Your task to perform on an android device: open a bookmark in the chrome app Image 0: 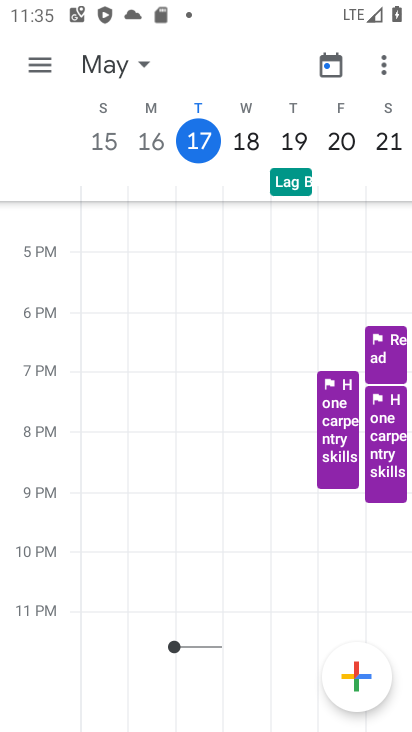
Step 0: press home button
Your task to perform on an android device: open a bookmark in the chrome app Image 1: 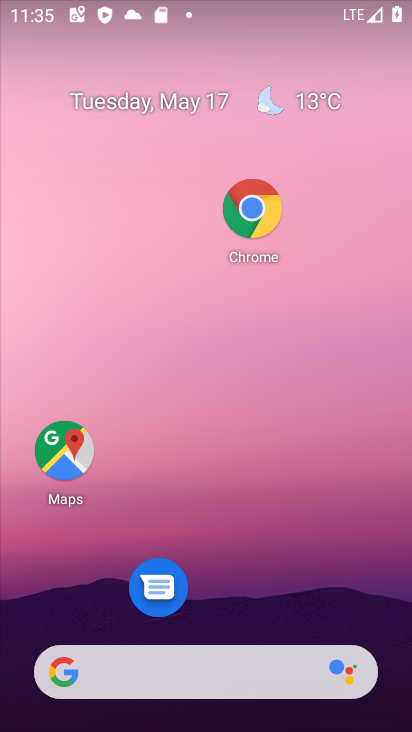
Step 1: click (250, 205)
Your task to perform on an android device: open a bookmark in the chrome app Image 2: 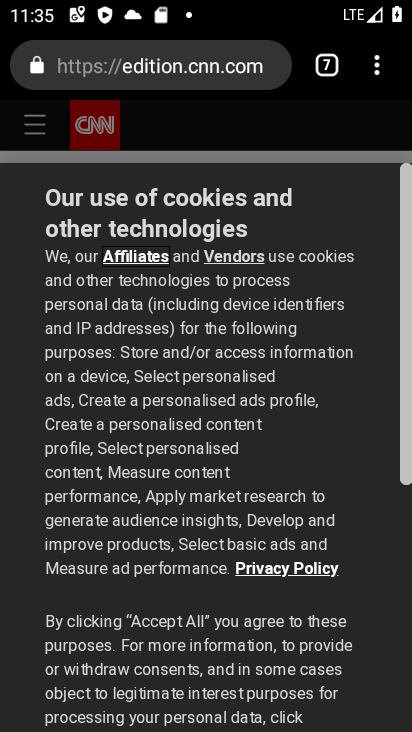
Step 2: click (386, 63)
Your task to perform on an android device: open a bookmark in the chrome app Image 3: 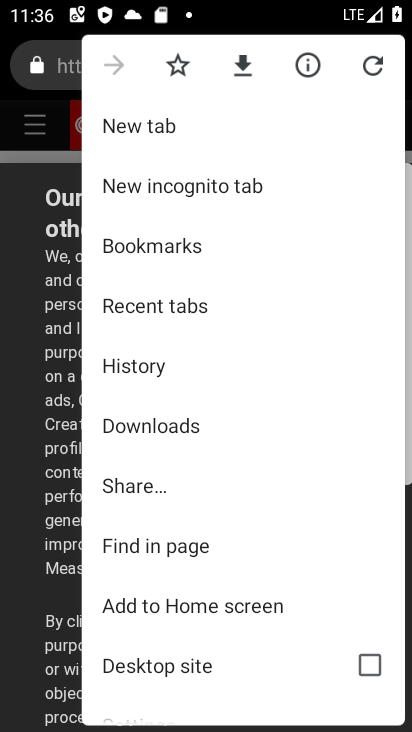
Step 3: click (255, 256)
Your task to perform on an android device: open a bookmark in the chrome app Image 4: 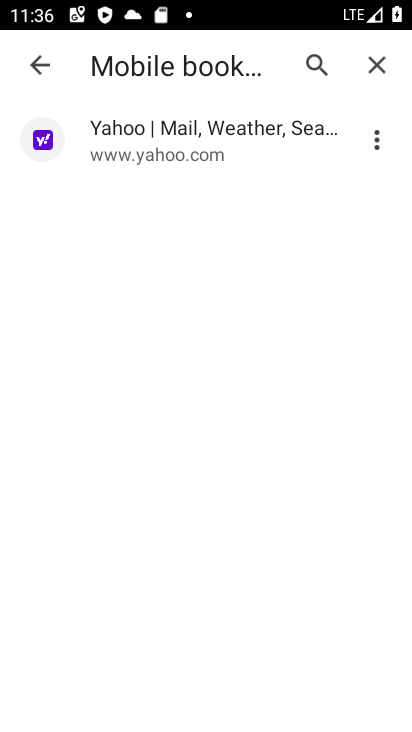
Step 4: task complete